Your task to perform on an android device: Search for "usb-a to usb-b" on costco, select the first entry, and add it to the cart. Image 0: 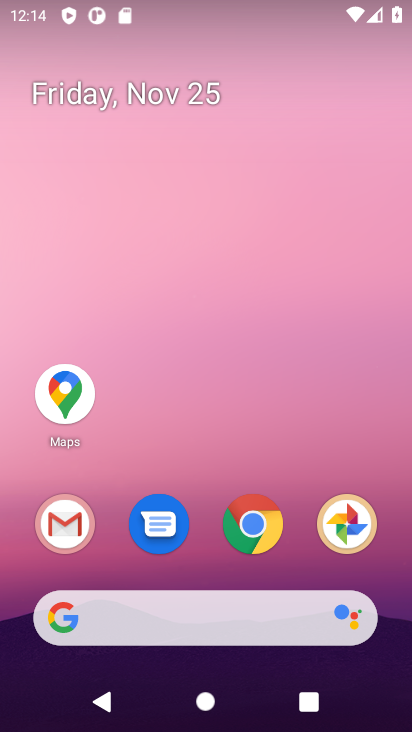
Step 0: click (244, 524)
Your task to perform on an android device: Search for "usb-a to usb-b" on costco, select the first entry, and add it to the cart. Image 1: 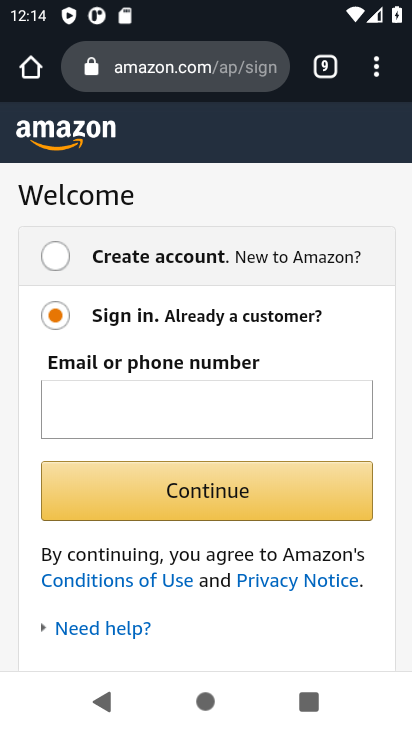
Step 1: click (169, 60)
Your task to perform on an android device: Search for "usb-a to usb-b" on costco, select the first entry, and add it to the cart. Image 2: 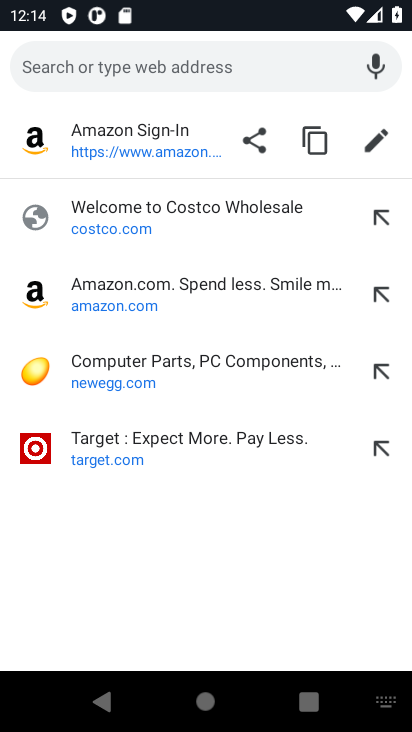
Step 2: click (82, 233)
Your task to perform on an android device: Search for "usb-a to usb-b" on costco, select the first entry, and add it to the cart. Image 3: 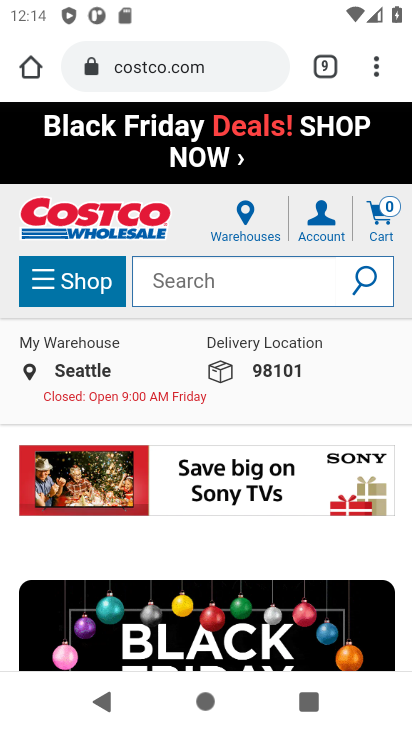
Step 3: click (162, 279)
Your task to perform on an android device: Search for "usb-a to usb-b" on costco, select the first entry, and add it to the cart. Image 4: 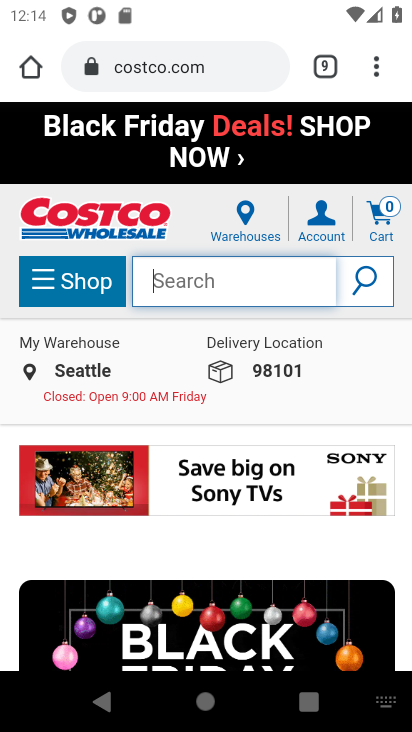
Step 4: type "usb-a to usb-b"
Your task to perform on an android device: Search for "usb-a to usb-b" on costco, select the first entry, and add it to the cart. Image 5: 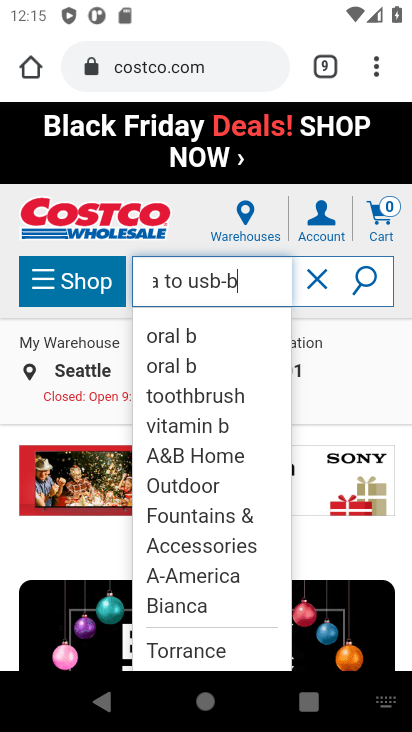
Step 5: click (365, 281)
Your task to perform on an android device: Search for "usb-a to usb-b" on costco, select the first entry, and add it to the cart. Image 6: 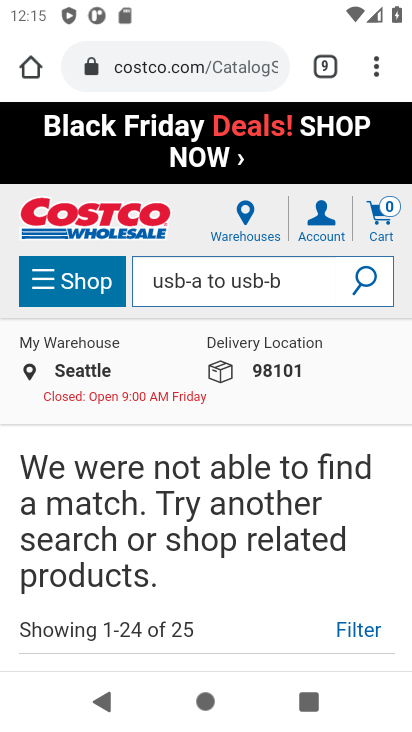
Step 6: task complete